Your task to perform on an android device: turn notification dots on Image 0: 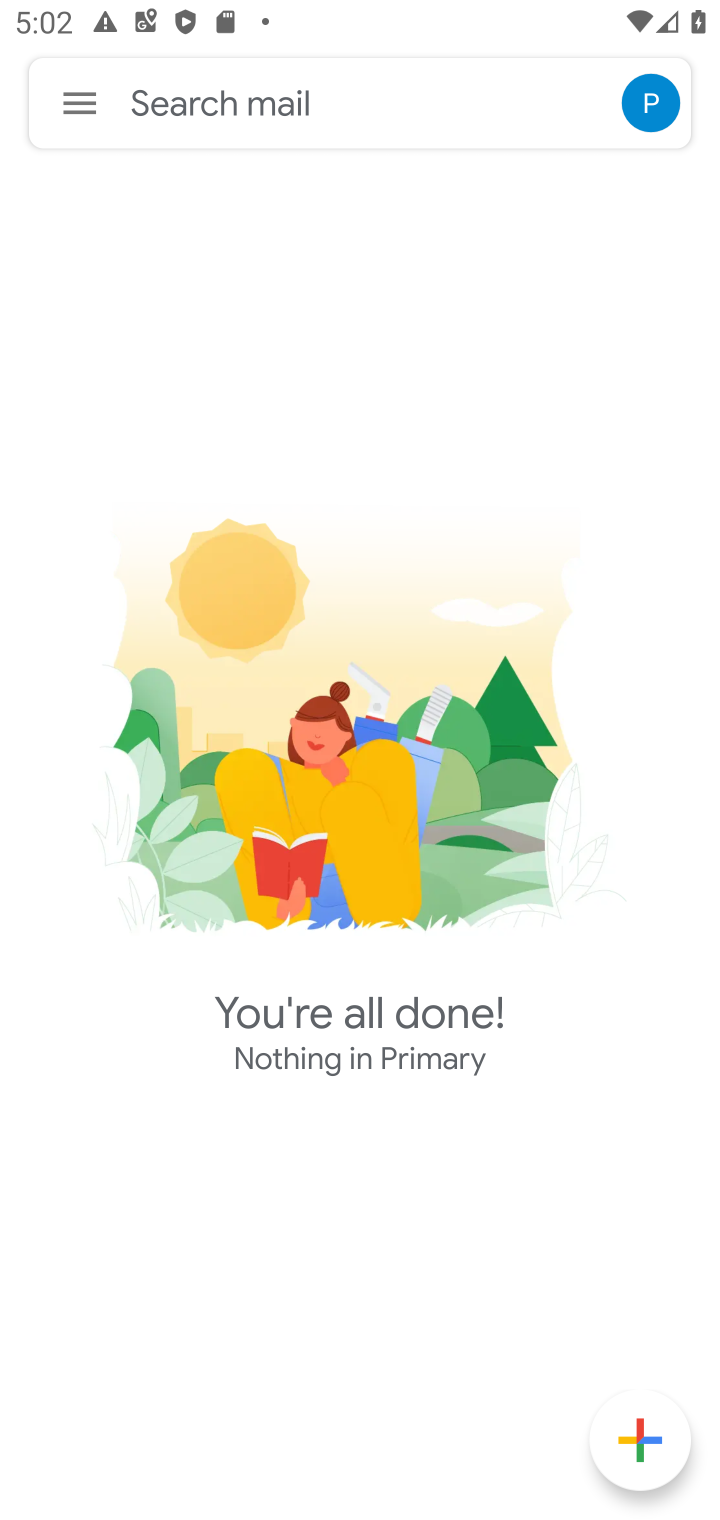
Step 0: press home button
Your task to perform on an android device: turn notification dots on Image 1: 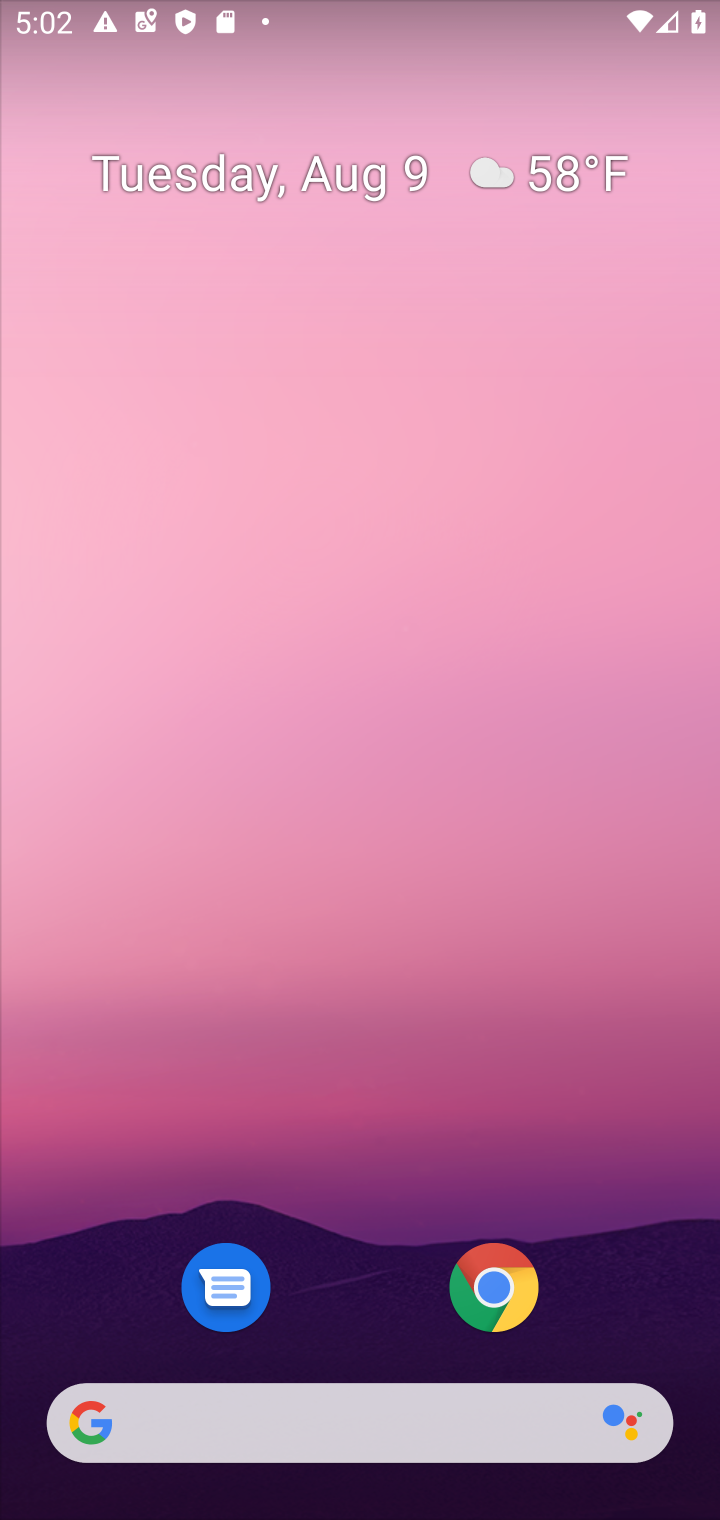
Step 1: drag from (363, 1116) to (471, 290)
Your task to perform on an android device: turn notification dots on Image 2: 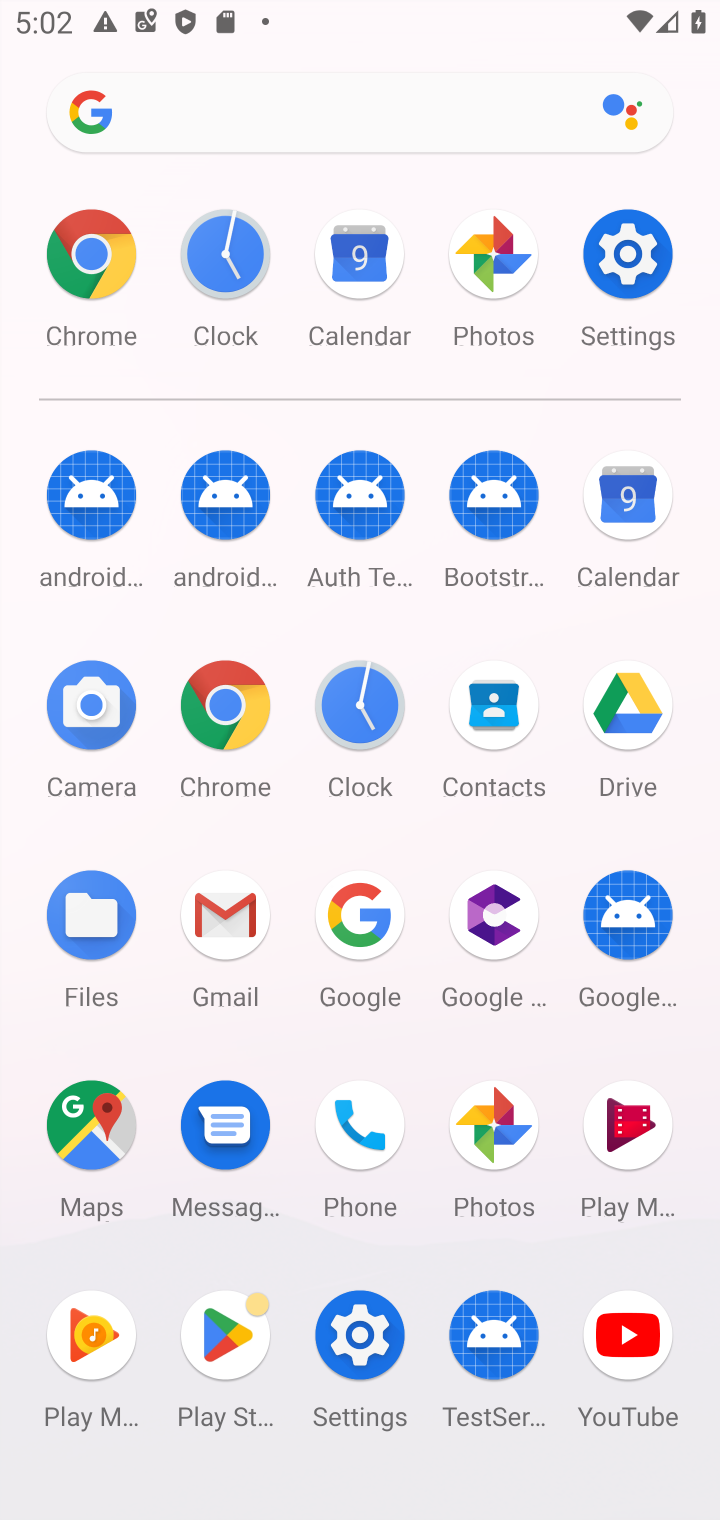
Step 2: click (634, 275)
Your task to perform on an android device: turn notification dots on Image 3: 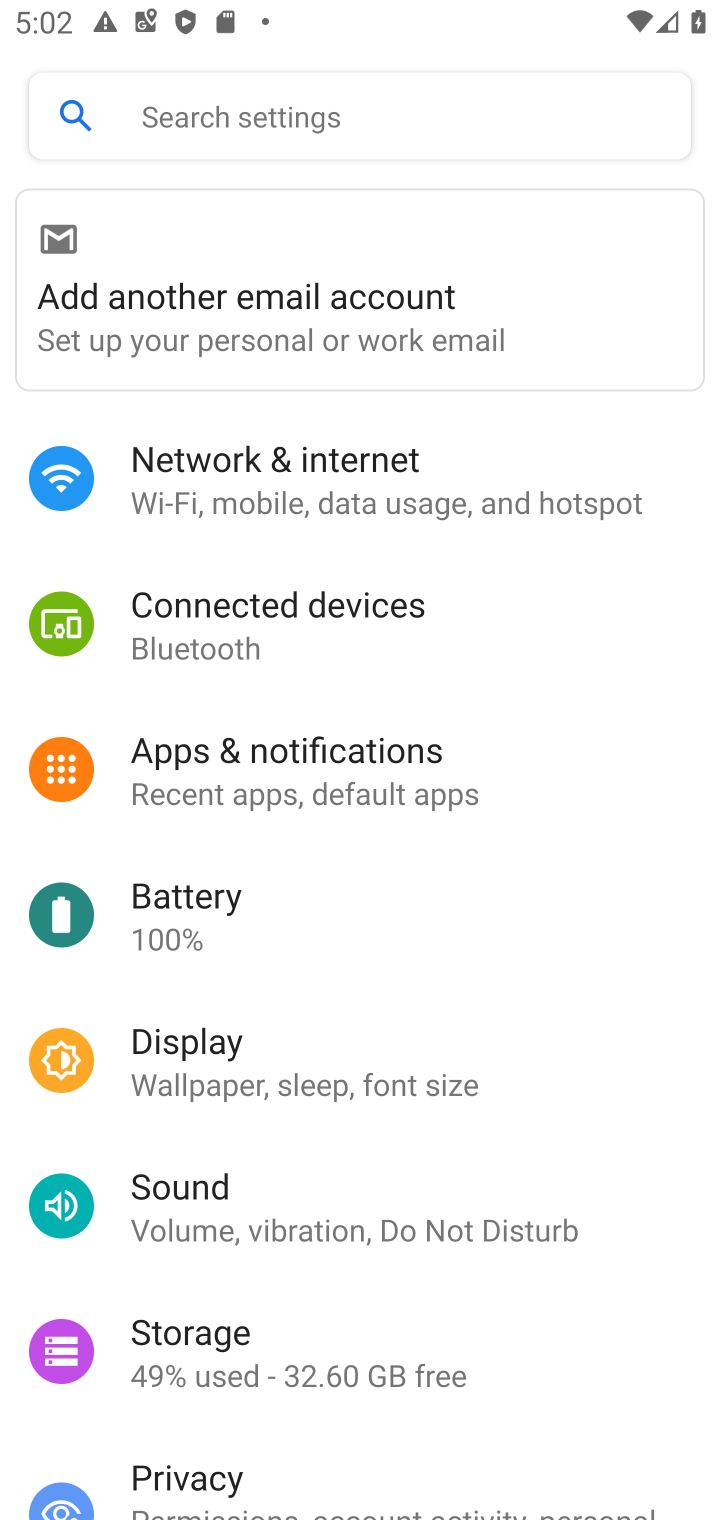
Step 3: task complete